Your task to perform on an android device: Open Chrome and go to the settings page Image 0: 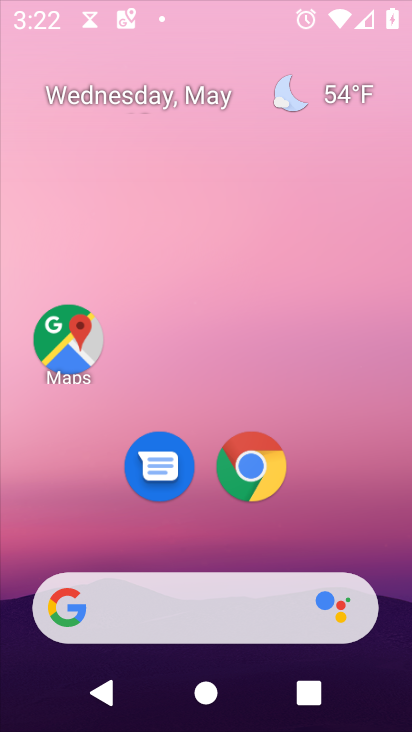
Step 0: click (268, 467)
Your task to perform on an android device: Open Chrome and go to the settings page Image 1: 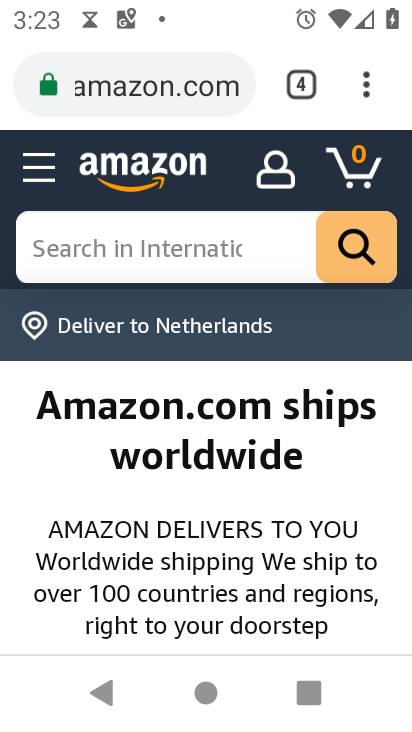
Step 1: click (372, 96)
Your task to perform on an android device: Open Chrome and go to the settings page Image 2: 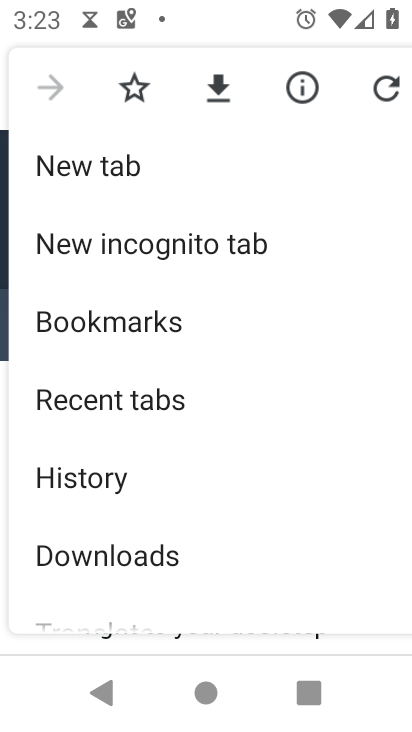
Step 2: drag from (320, 567) to (289, 295)
Your task to perform on an android device: Open Chrome and go to the settings page Image 3: 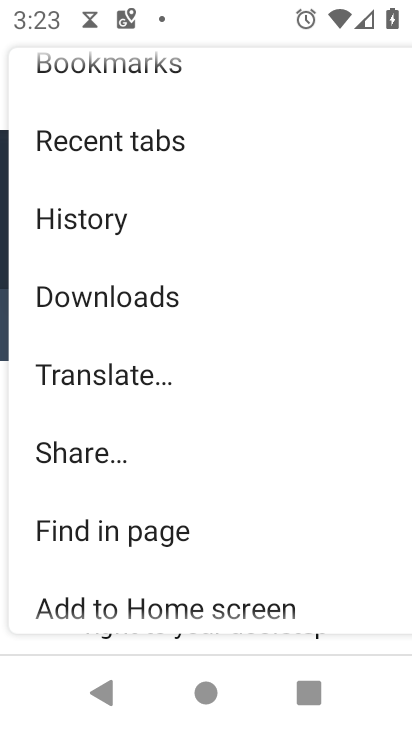
Step 3: drag from (276, 518) to (268, 147)
Your task to perform on an android device: Open Chrome and go to the settings page Image 4: 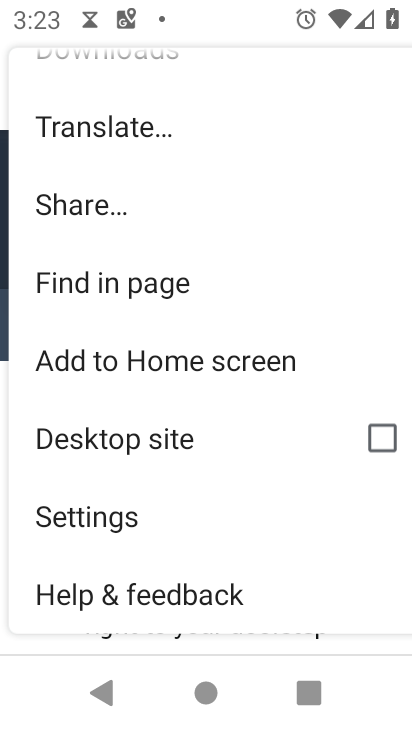
Step 4: click (163, 502)
Your task to perform on an android device: Open Chrome and go to the settings page Image 5: 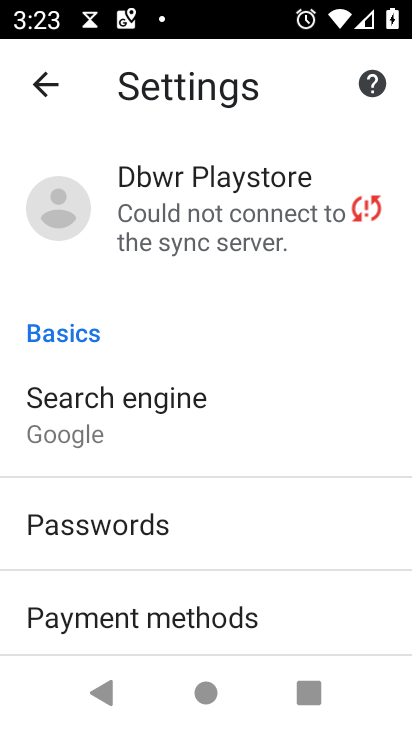
Step 5: task complete